Your task to perform on an android device: Go to ESPN.com Image 0: 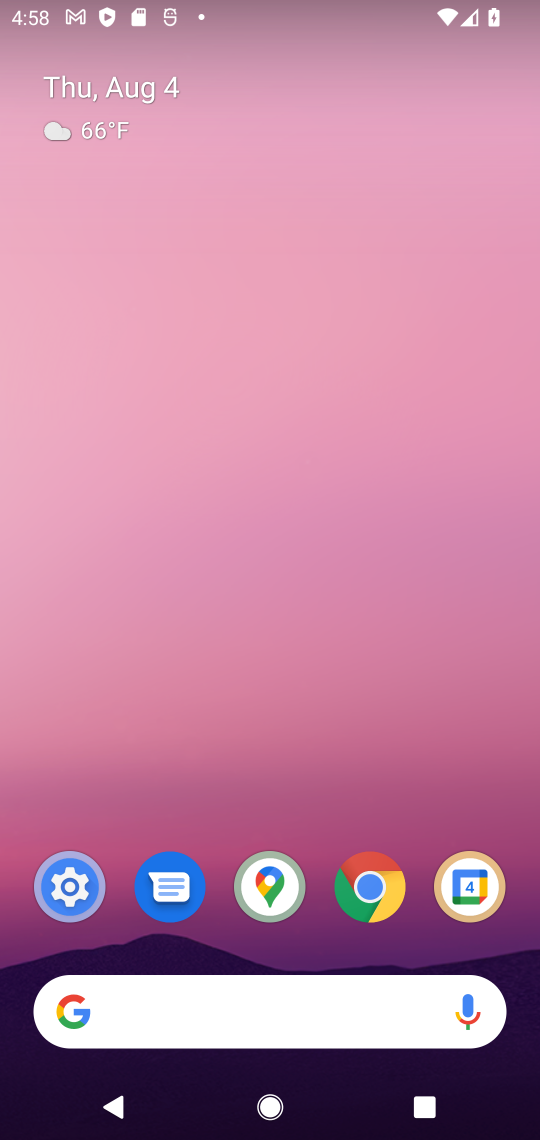
Step 0: click (375, 876)
Your task to perform on an android device: Go to ESPN.com Image 1: 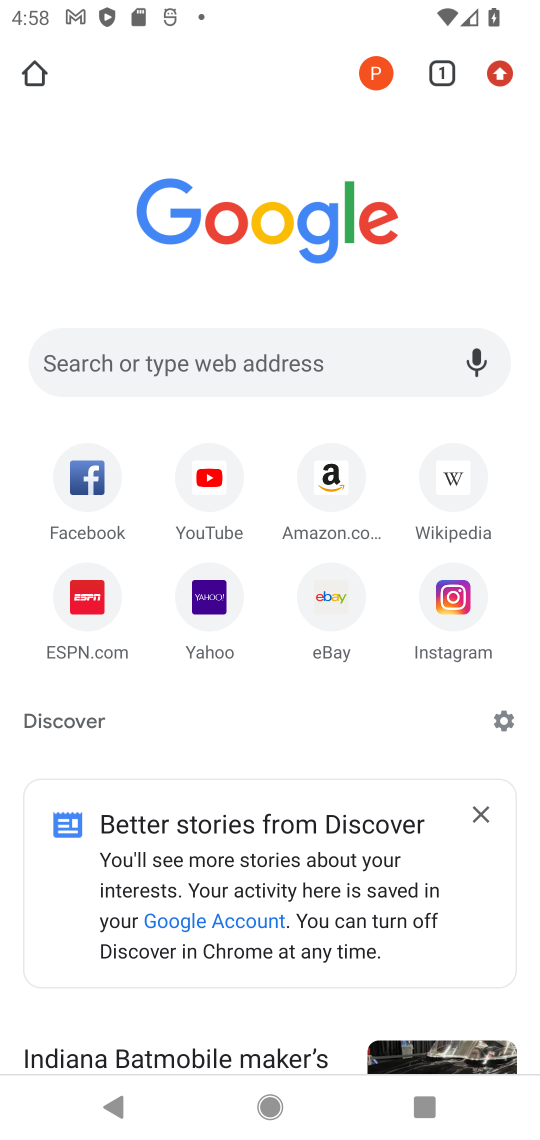
Step 1: click (324, 366)
Your task to perform on an android device: Go to ESPN.com Image 2: 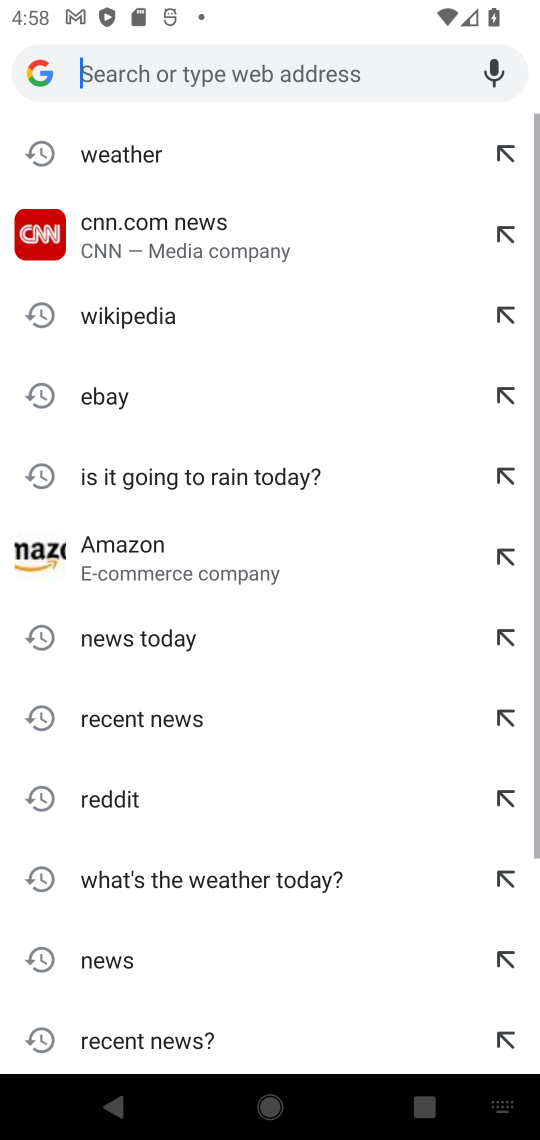
Step 2: drag from (410, 1136) to (460, 828)
Your task to perform on an android device: Go to ESPN.com Image 3: 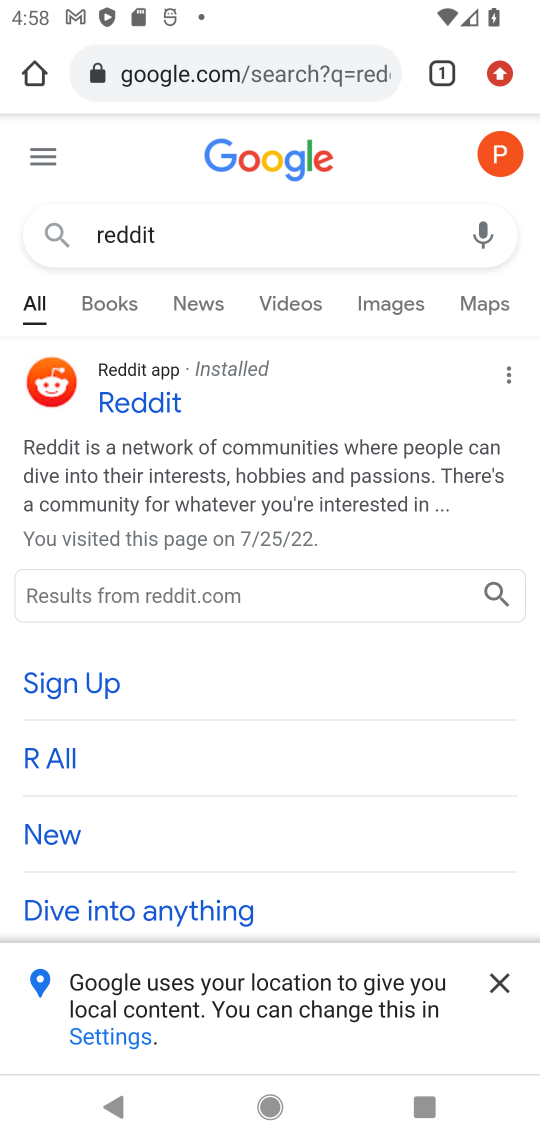
Step 3: type "ESPN.com"
Your task to perform on an android device: Go to ESPN.com Image 4: 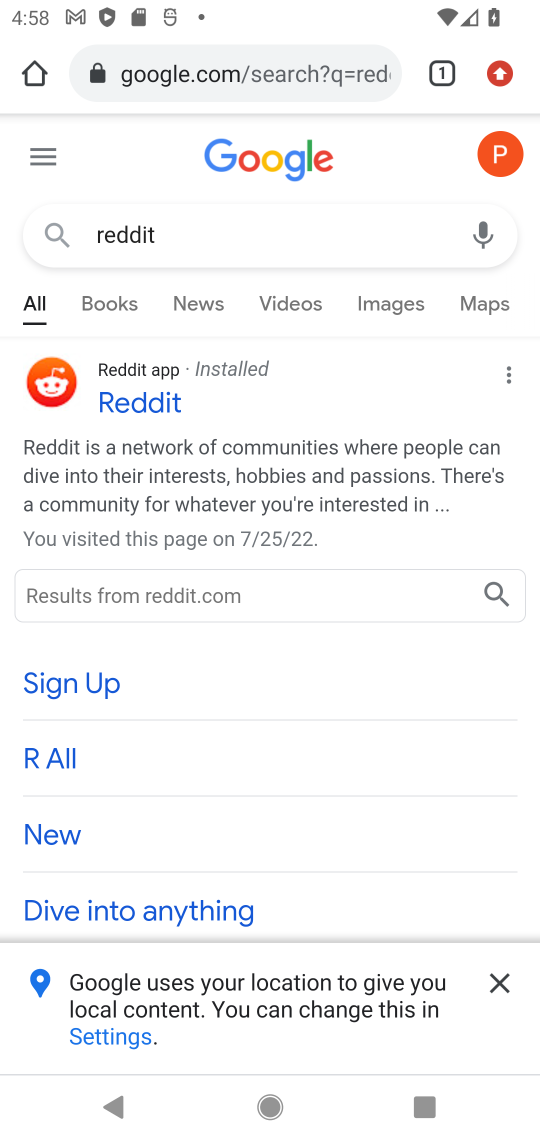
Step 4: type "ESPN.com"
Your task to perform on an android device: Go to ESPN.com Image 5: 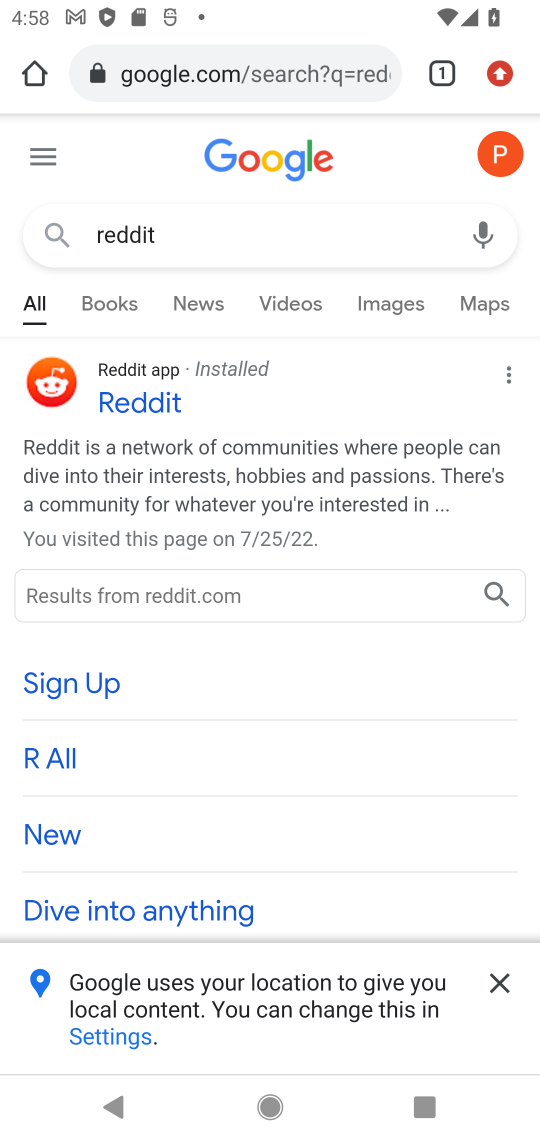
Step 5: click (341, 95)
Your task to perform on an android device: Go to ESPN.com Image 6: 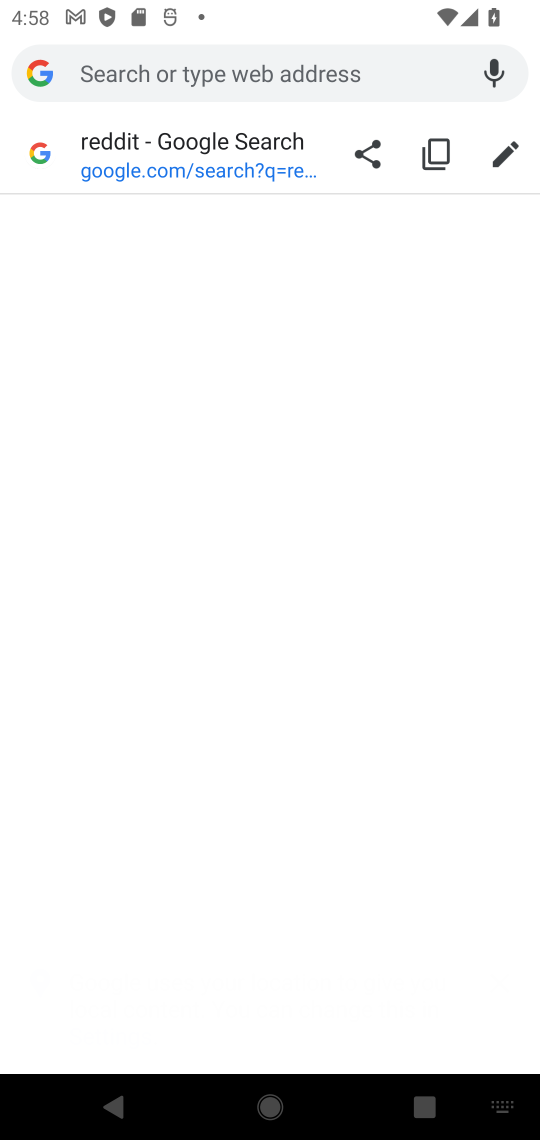
Step 6: type "ESPN.com"
Your task to perform on an android device: Go to ESPN.com Image 7: 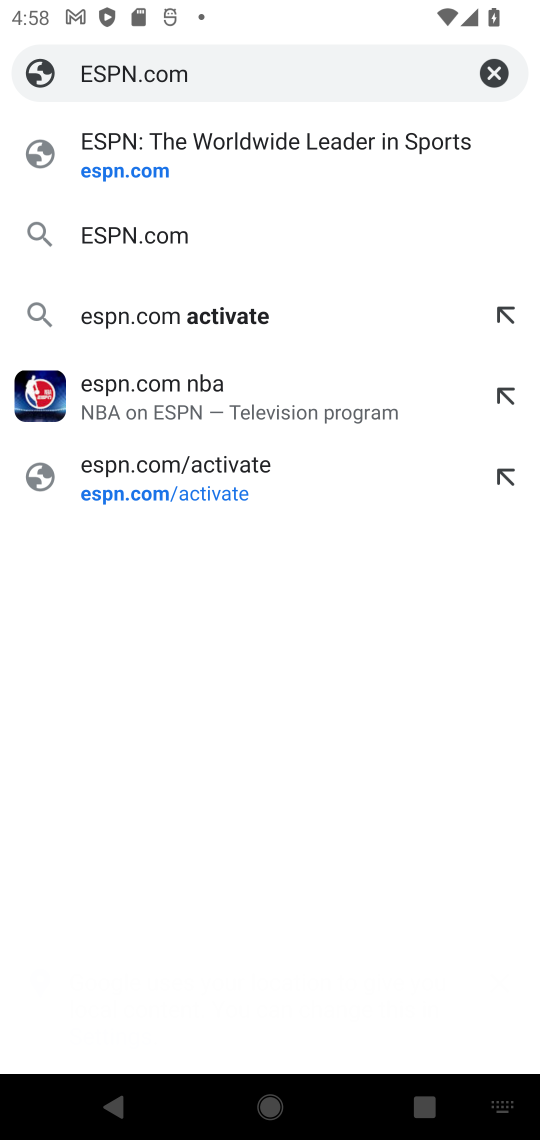
Step 7: click (161, 224)
Your task to perform on an android device: Go to ESPN.com Image 8: 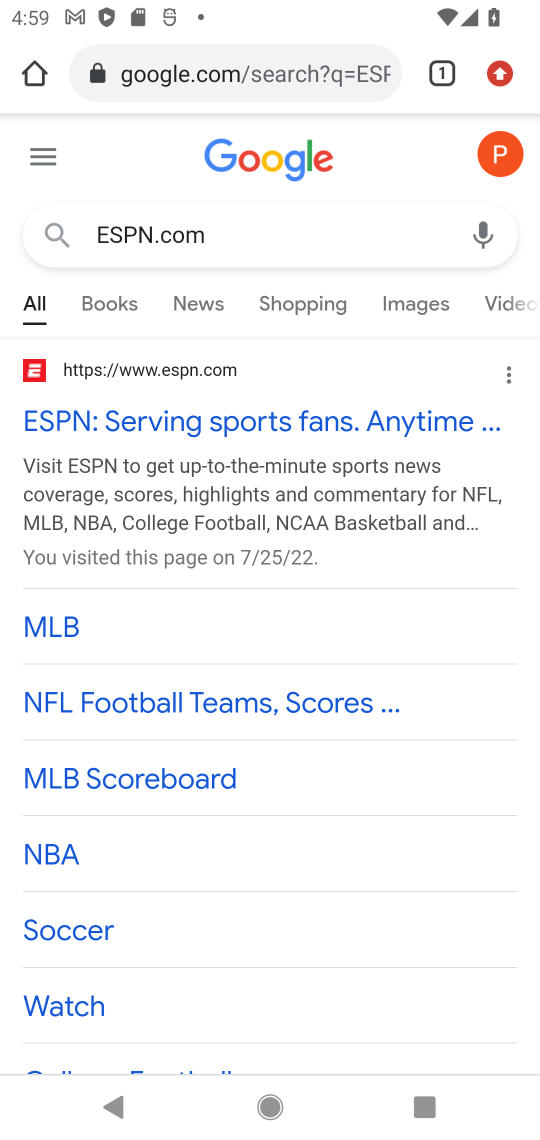
Step 8: task complete